Your task to perform on an android device: toggle notification dots Image 0: 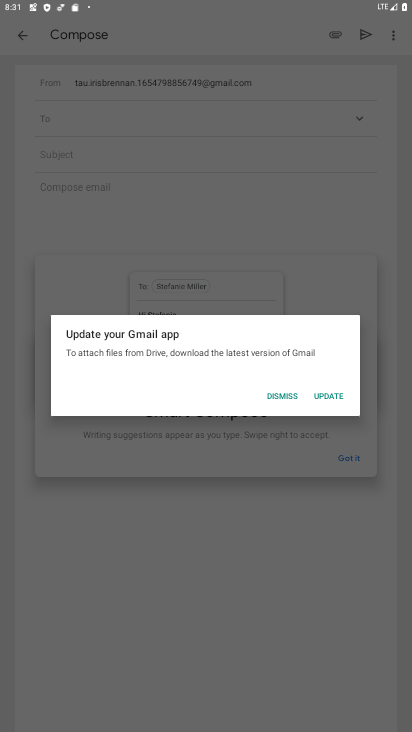
Step 0: press home button
Your task to perform on an android device: toggle notification dots Image 1: 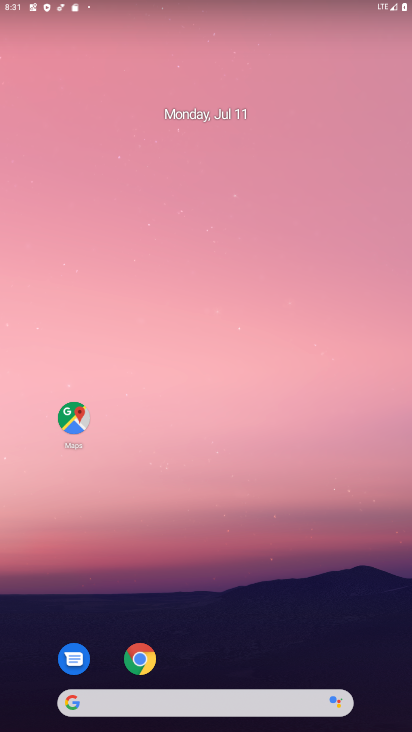
Step 1: drag from (197, 633) to (165, 1)
Your task to perform on an android device: toggle notification dots Image 2: 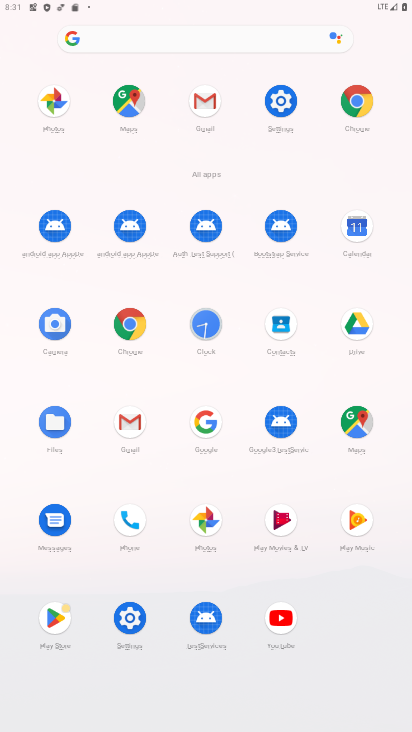
Step 2: click (123, 629)
Your task to perform on an android device: toggle notification dots Image 3: 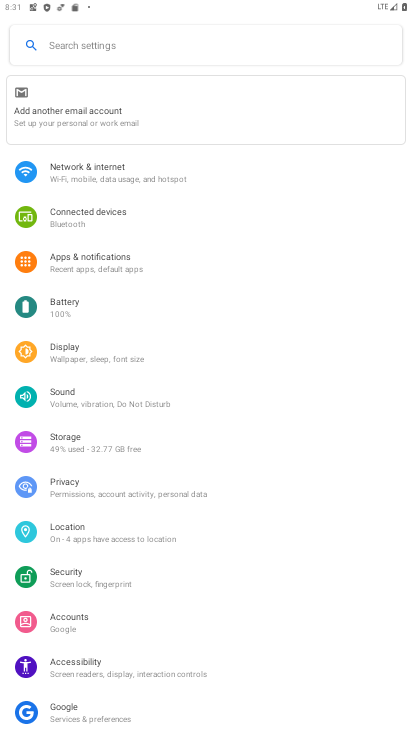
Step 3: click (129, 268)
Your task to perform on an android device: toggle notification dots Image 4: 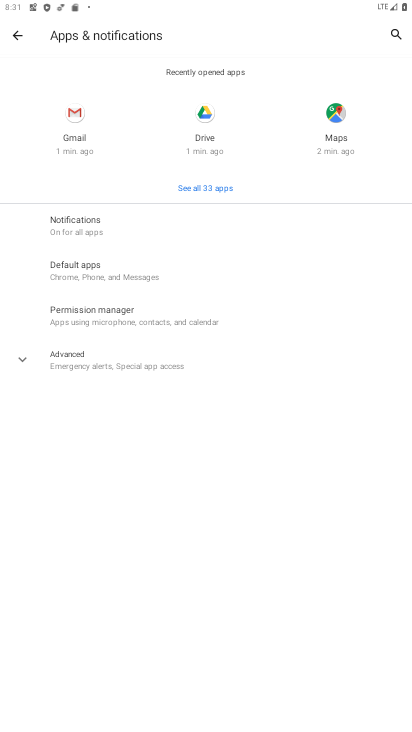
Step 4: click (99, 226)
Your task to perform on an android device: toggle notification dots Image 5: 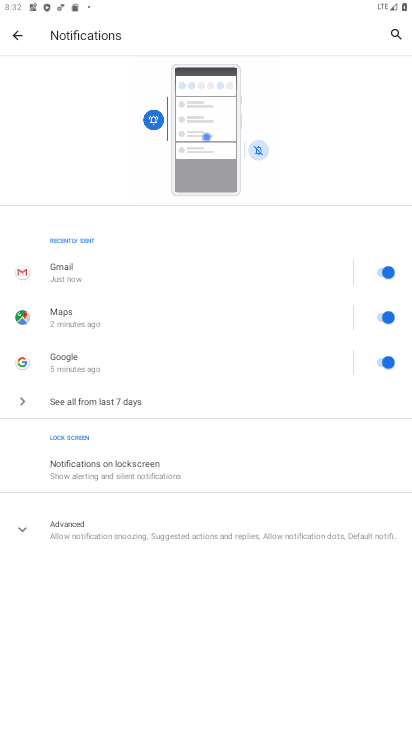
Step 5: click (181, 537)
Your task to perform on an android device: toggle notification dots Image 6: 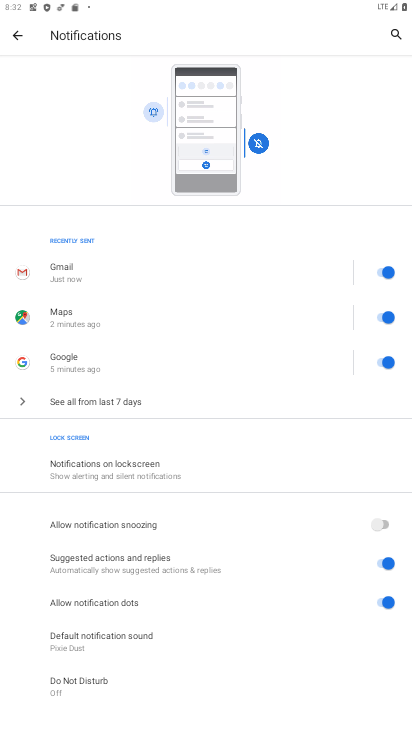
Step 6: click (373, 604)
Your task to perform on an android device: toggle notification dots Image 7: 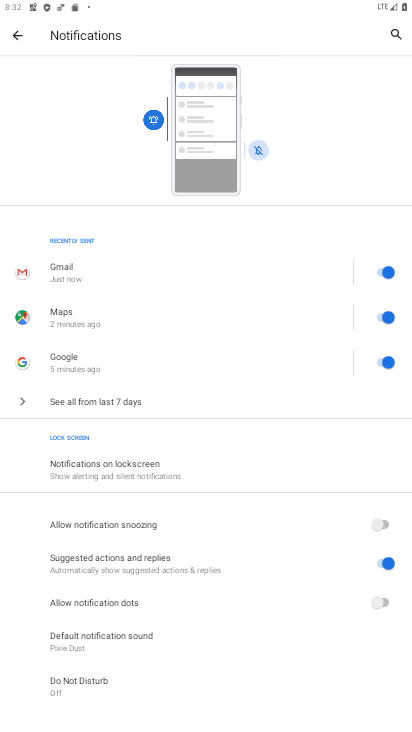
Step 7: task complete